Your task to perform on an android device: empty trash in the gmail app Image 0: 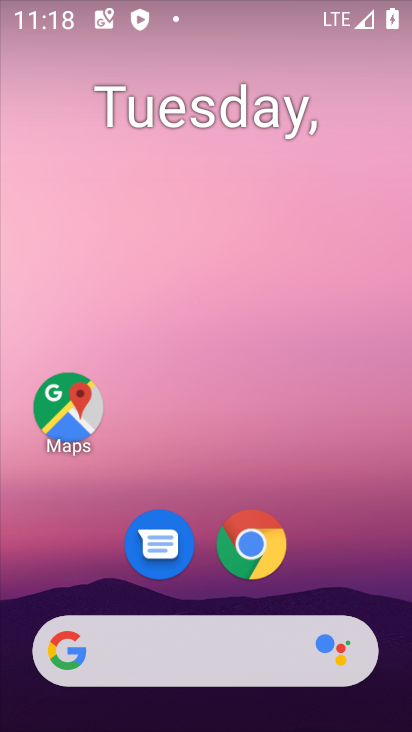
Step 0: drag from (388, 650) to (309, 18)
Your task to perform on an android device: empty trash in the gmail app Image 1: 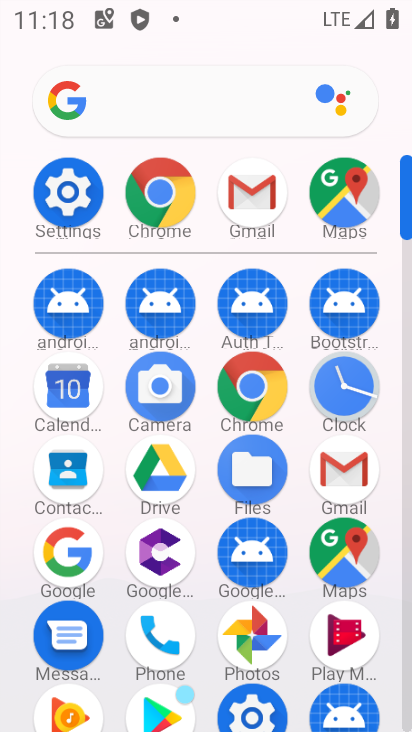
Step 1: click (328, 486)
Your task to perform on an android device: empty trash in the gmail app Image 2: 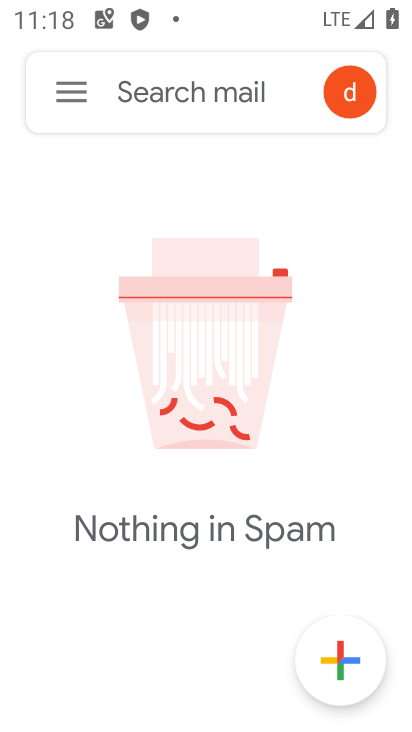
Step 2: click (86, 88)
Your task to perform on an android device: empty trash in the gmail app Image 3: 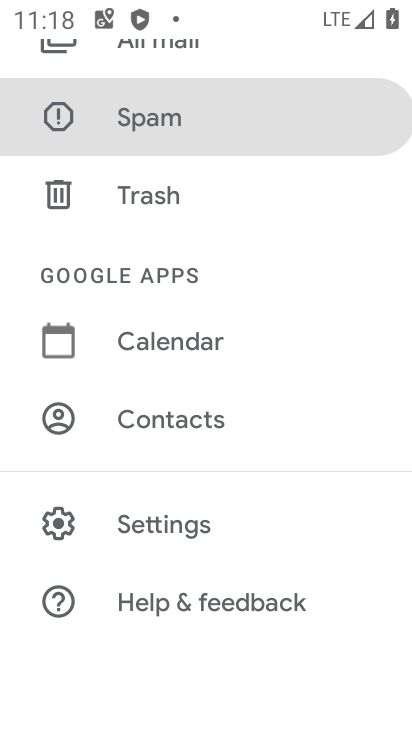
Step 3: click (169, 207)
Your task to perform on an android device: empty trash in the gmail app Image 4: 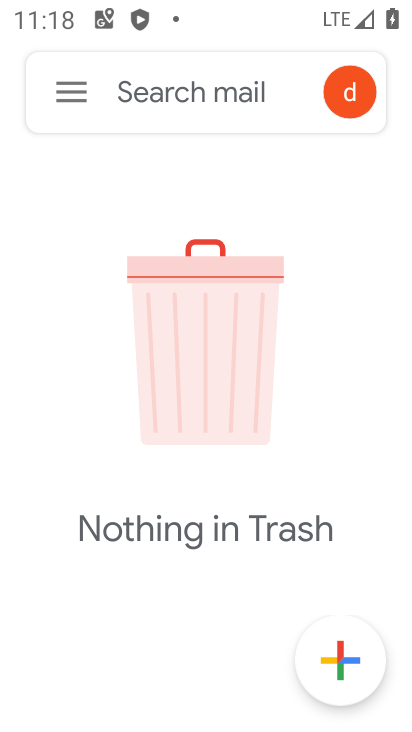
Step 4: task complete